Your task to perform on an android device: open device folders in google photos Image 0: 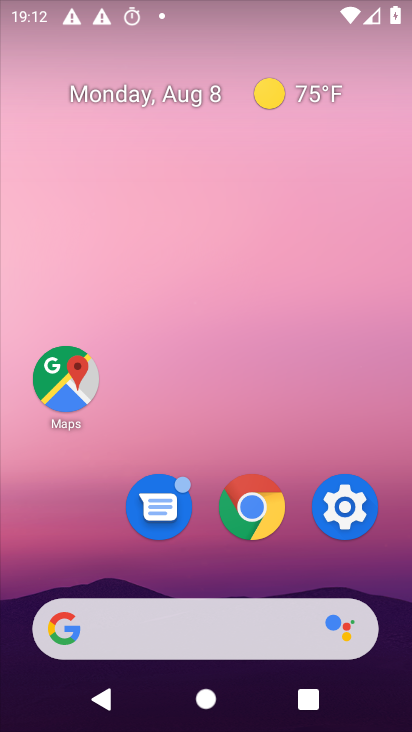
Step 0: drag from (300, 689) to (320, 226)
Your task to perform on an android device: open device folders in google photos Image 1: 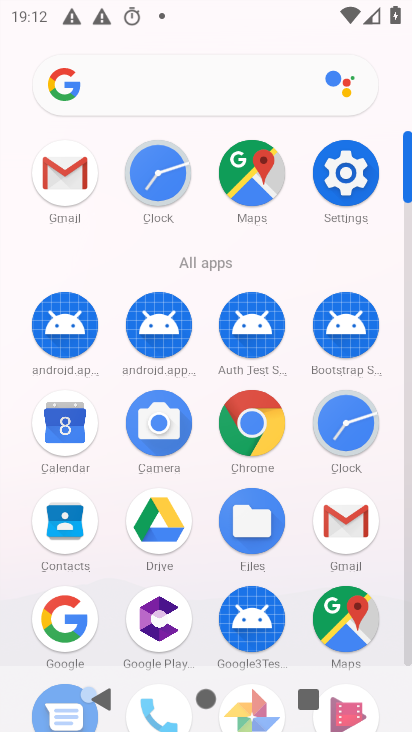
Step 1: drag from (213, 575) to (217, 434)
Your task to perform on an android device: open device folders in google photos Image 2: 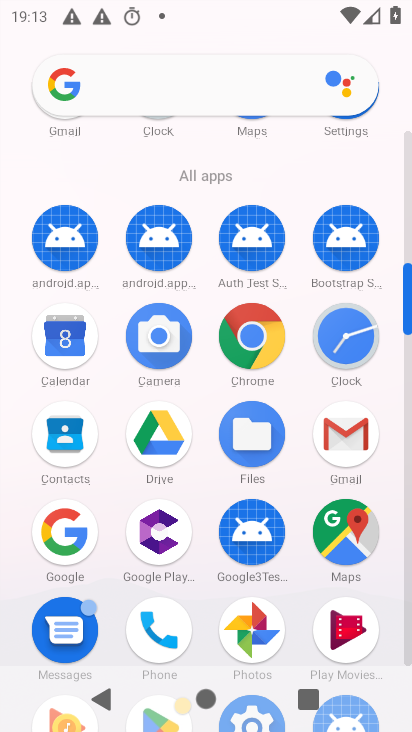
Step 2: click (266, 618)
Your task to perform on an android device: open device folders in google photos Image 3: 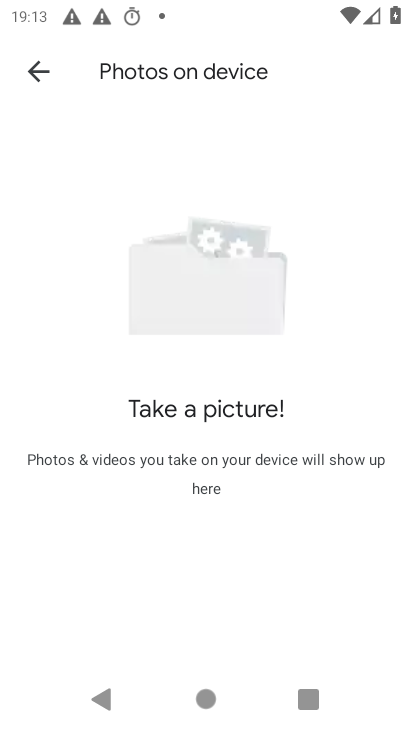
Step 3: task complete